Your task to perform on an android device: toggle show notifications on the lock screen Image 0: 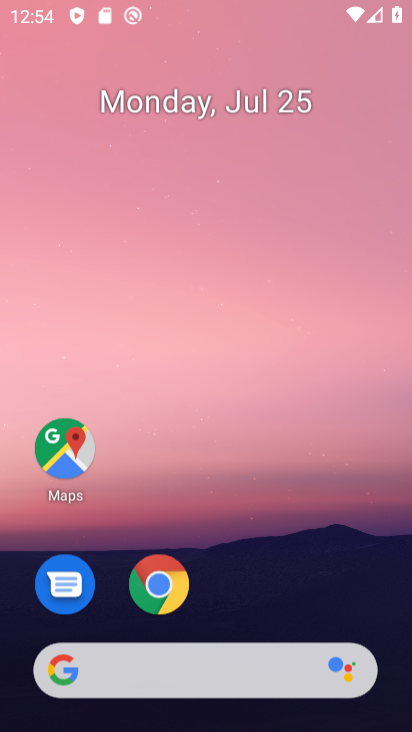
Step 0: press home button
Your task to perform on an android device: toggle show notifications on the lock screen Image 1: 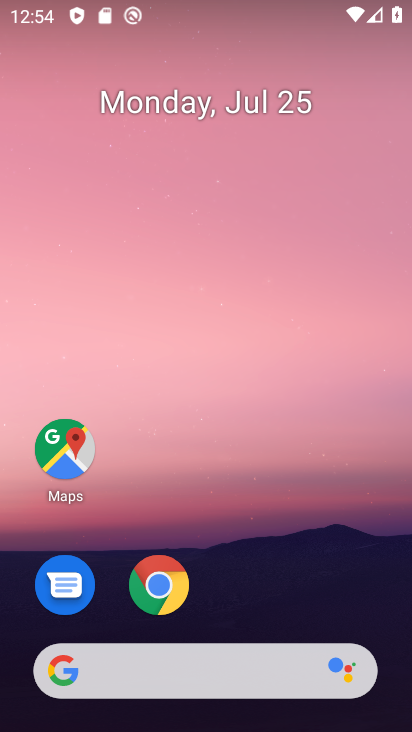
Step 1: drag from (169, 656) to (191, 41)
Your task to perform on an android device: toggle show notifications on the lock screen Image 2: 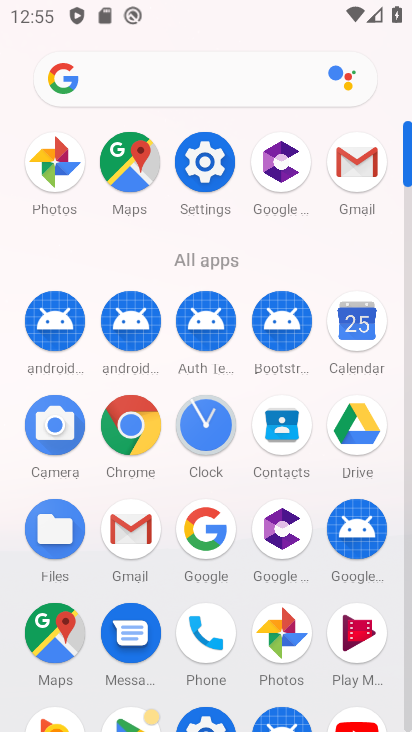
Step 2: click (204, 166)
Your task to perform on an android device: toggle show notifications on the lock screen Image 3: 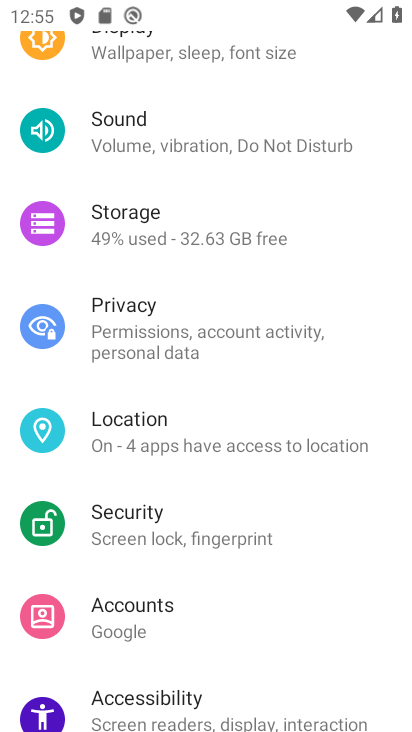
Step 3: drag from (156, 81) to (171, 468)
Your task to perform on an android device: toggle show notifications on the lock screen Image 4: 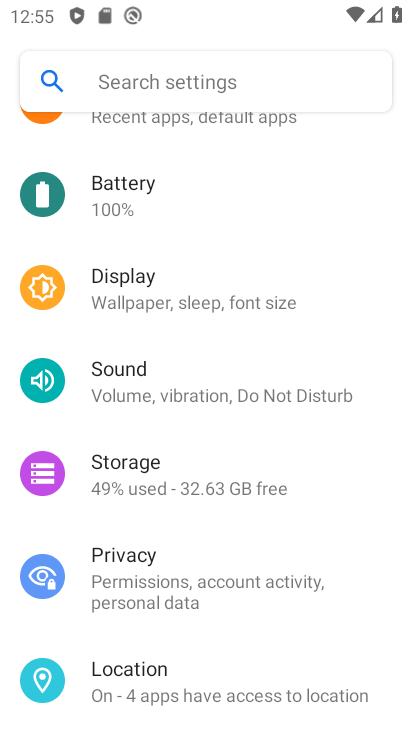
Step 4: click (164, 130)
Your task to perform on an android device: toggle show notifications on the lock screen Image 5: 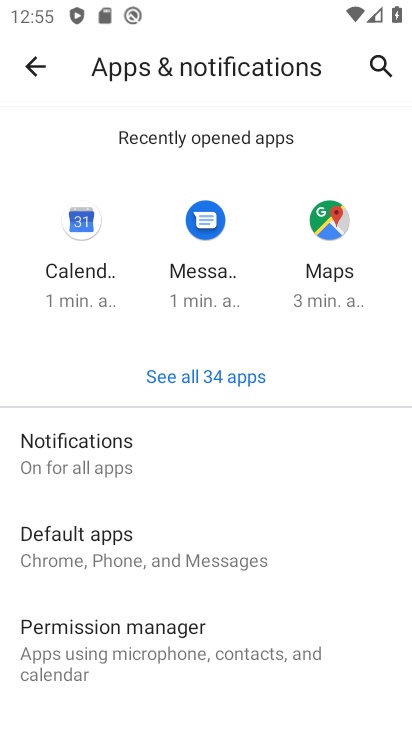
Step 5: click (167, 471)
Your task to perform on an android device: toggle show notifications on the lock screen Image 6: 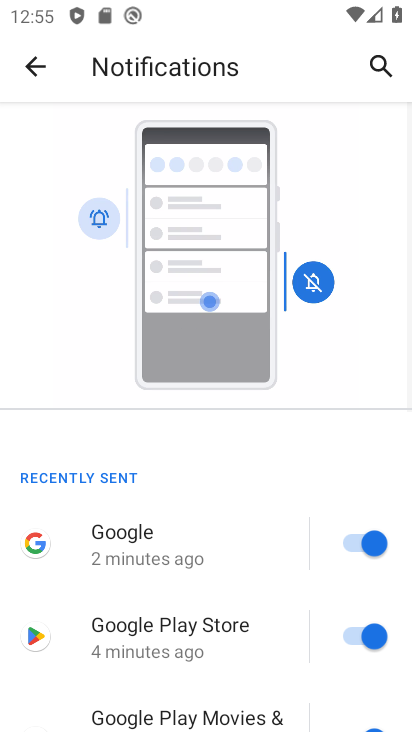
Step 6: drag from (217, 619) to (222, 47)
Your task to perform on an android device: toggle show notifications on the lock screen Image 7: 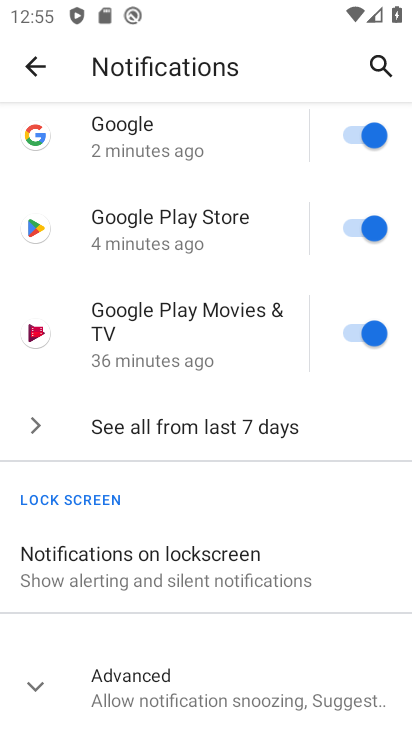
Step 7: click (140, 583)
Your task to perform on an android device: toggle show notifications on the lock screen Image 8: 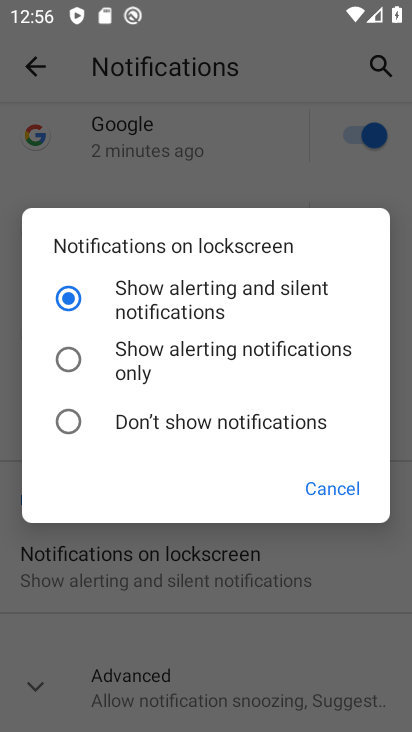
Step 8: click (165, 318)
Your task to perform on an android device: toggle show notifications on the lock screen Image 9: 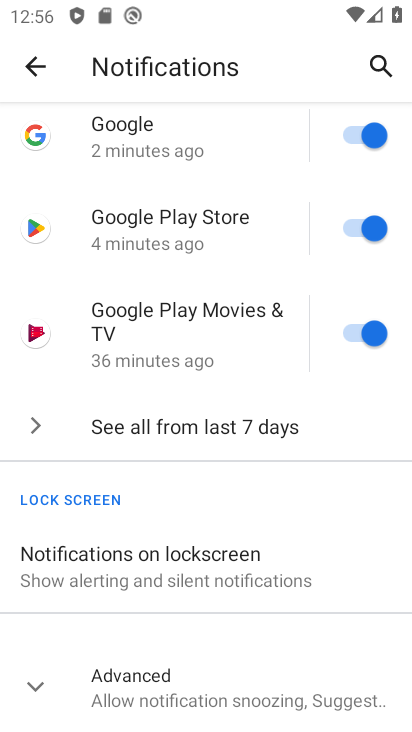
Step 9: task complete